Your task to perform on an android device: check google app version Image 0: 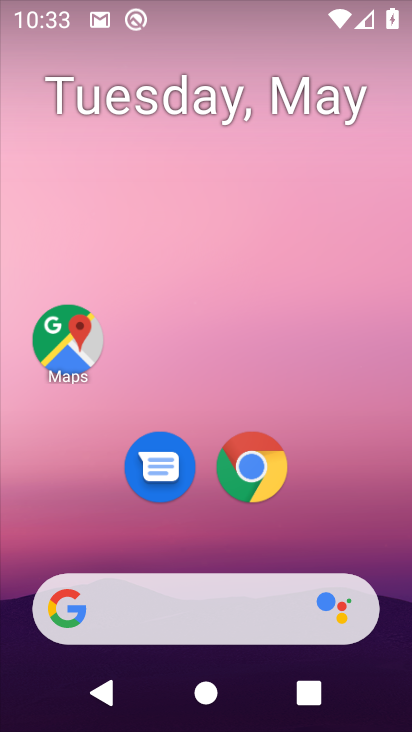
Step 0: drag from (173, 571) to (259, 126)
Your task to perform on an android device: check google app version Image 1: 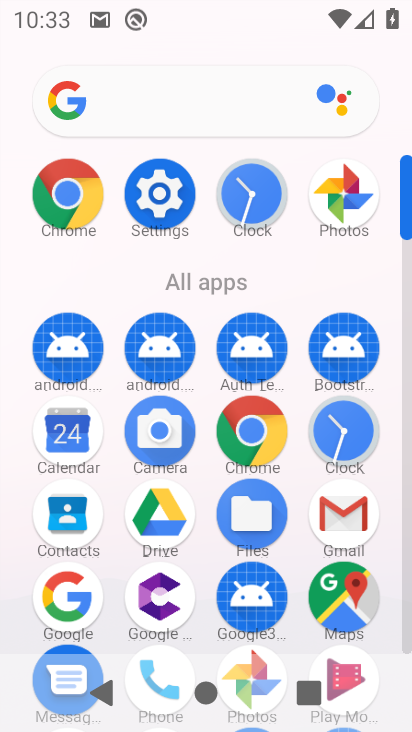
Step 1: click (169, 181)
Your task to perform on an android device: check google app version Image 2: 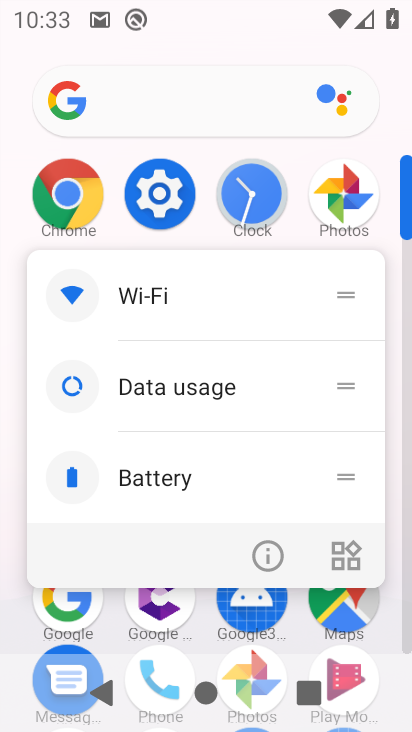
Step 2: drag from (218, 584) to (258, 253)
Your task to perform on an android device: check google app version Image 3: 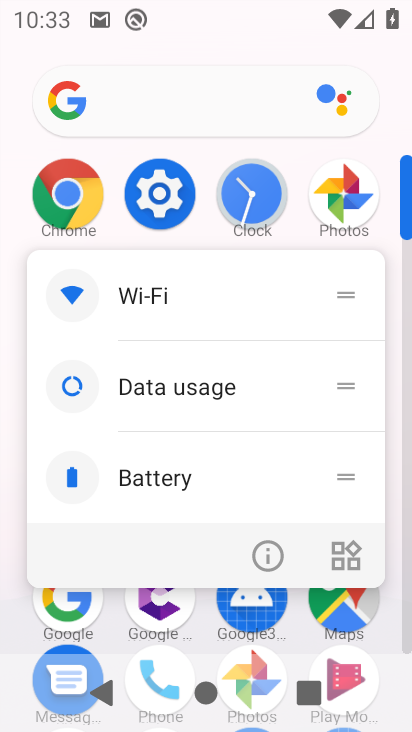
Step 3: click (299, 626)
Your task to perform on an android device: check google app version Image 4: 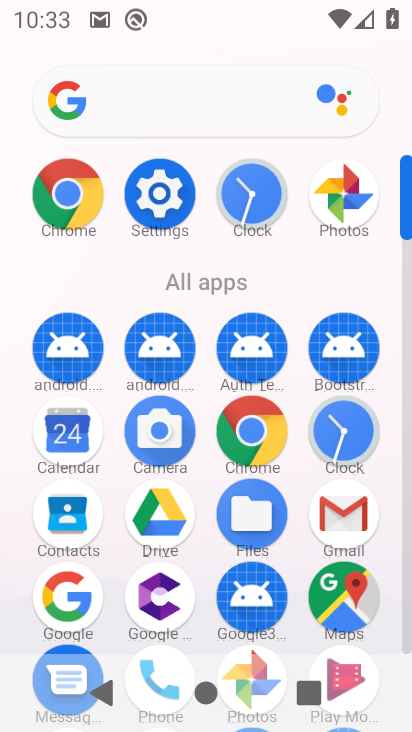
Step 4: click (38, 593)
Your task to perform on an android device: check google app version Image 5: 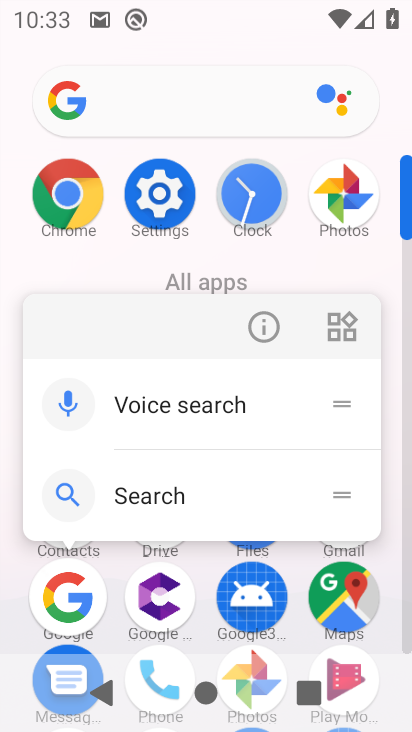
Step 5: drag from (100, 567) to (180, 204)
Your task to perform on an android device: check google app version Image 6: 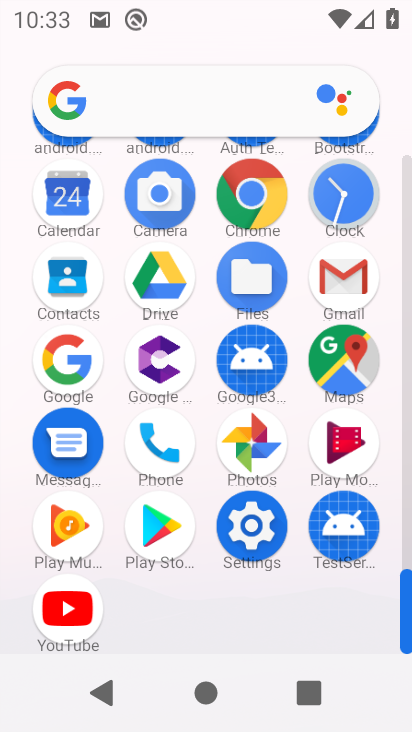
Step 6: click (79, 357)
Your task to perform on an android device: check google app version Image 7: 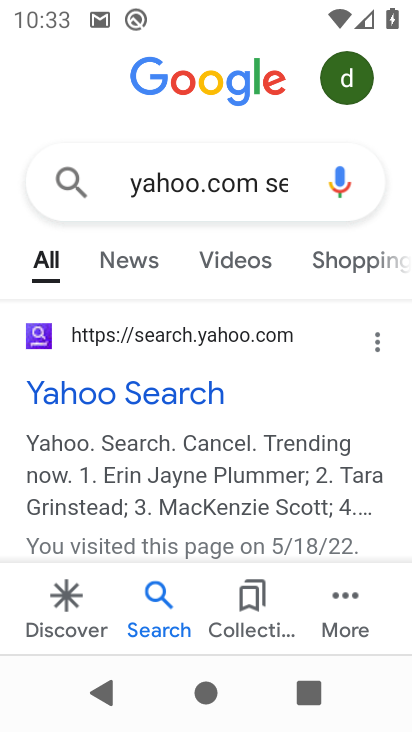
Step 7: click (333, 607)
Your task to perform on an android device: check google app version Image 8: 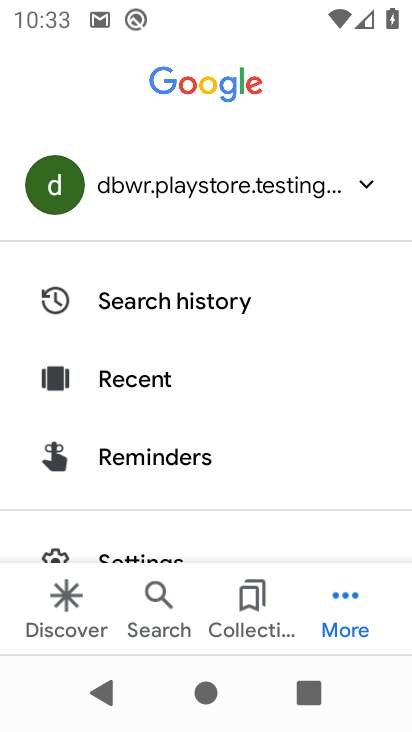
Step 8: drag from (238, 490) to (273, 136)
Your task to perform on an android device: check google app version Image 9: 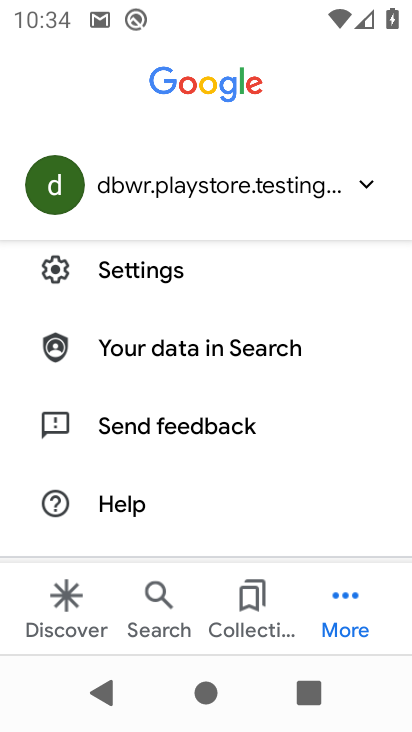
Step 9: click (193, 268)
Your task to perform on an android device: check google app version Image 10: 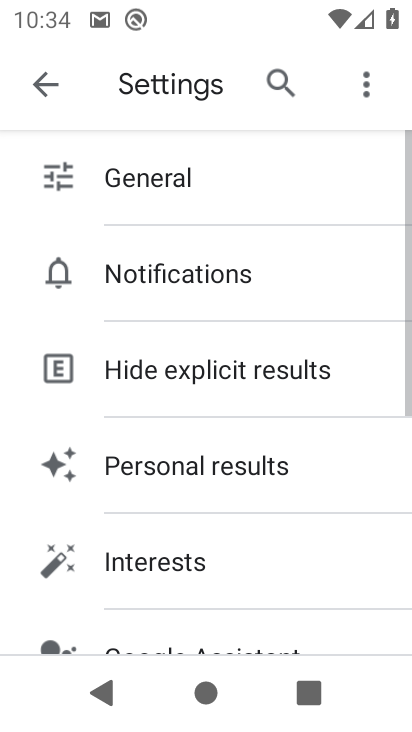
Step 10: drag from (211, 515) to (291, 79)
Your task to perform on an android device: check google app version Image 11: 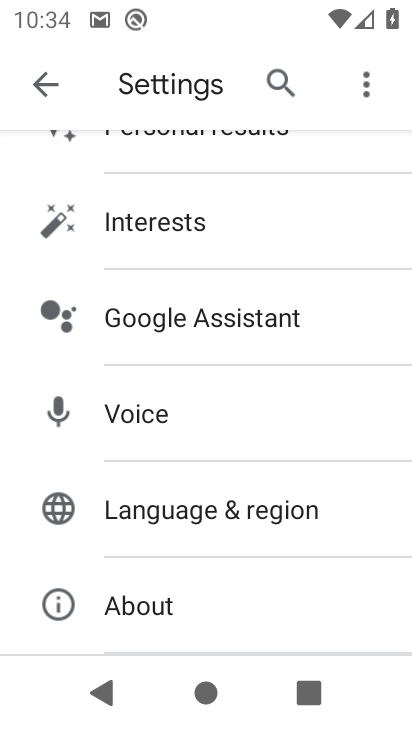
Step 11: click (180, 593)
Your task to perform on an android device: check google app version Image 12: 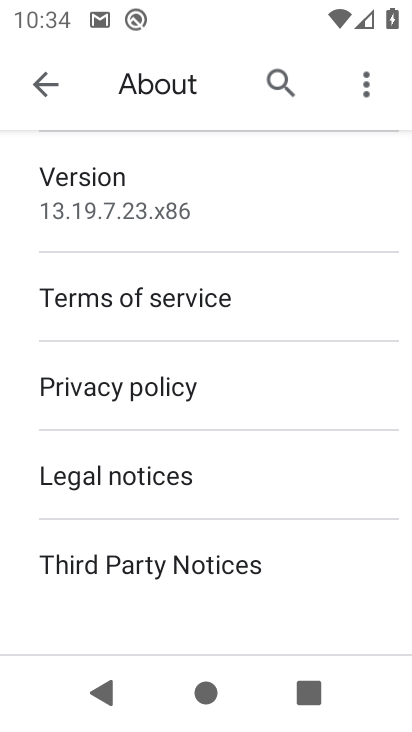
Step 12: click (201, 224)
Your task to perform on an android device: check google app version Image 13: 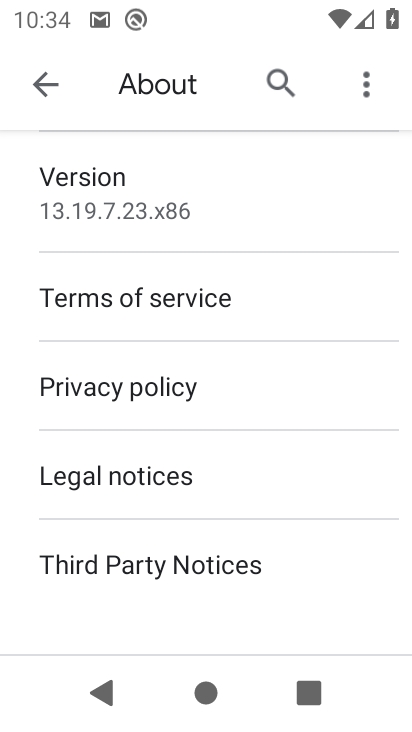
Step 13: task complete